Your task to perform on an android device: Open a new incognito window in the chrome app Image 0: 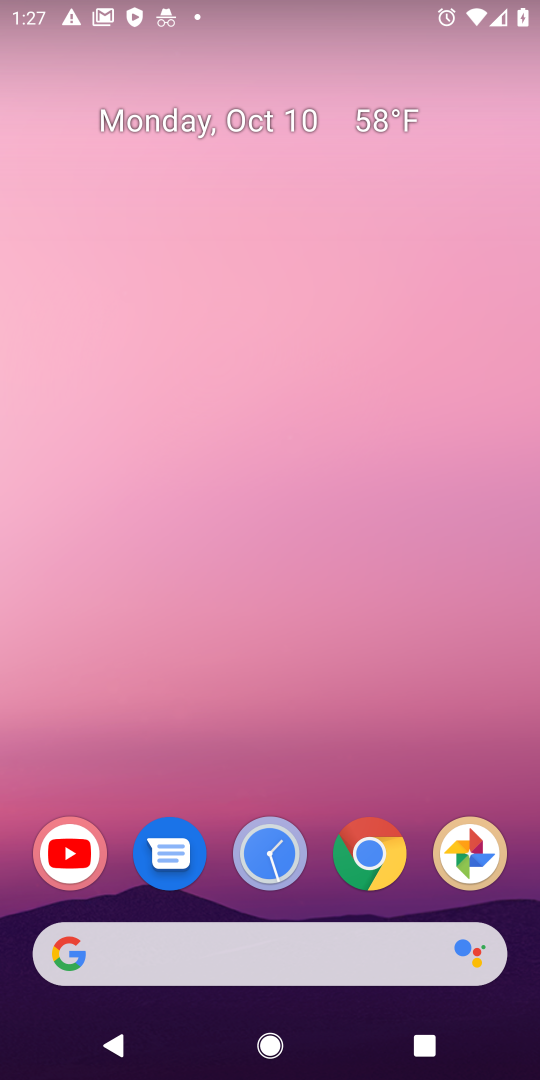
Step 0: click (392, 837)
Your task to perform on an android device: Open a new incognito window in the chrome app Image 1: 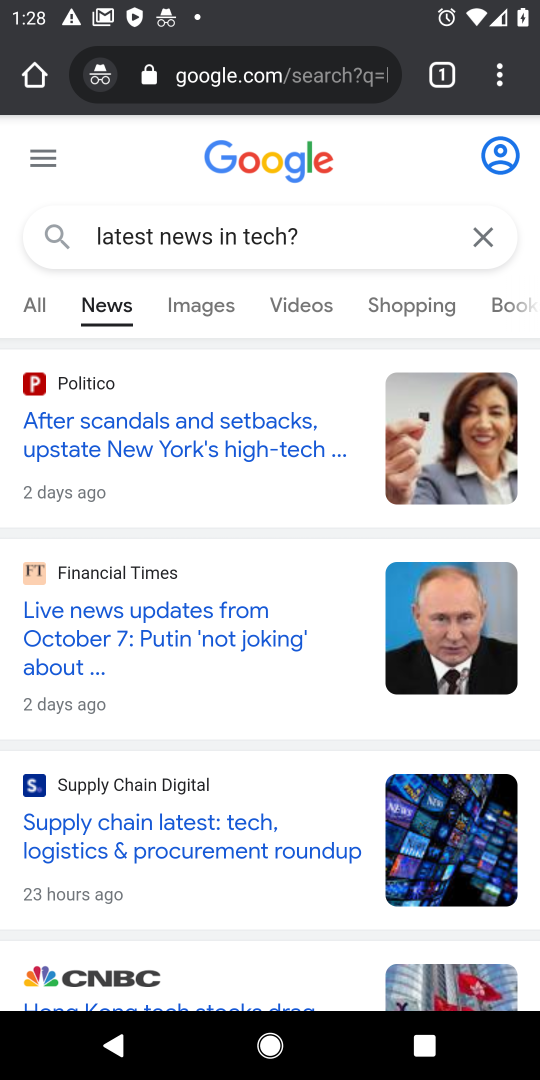
Step 1: task complete